Your task to perform on an android device: turn off priority inbox in the gmail app Image 0: 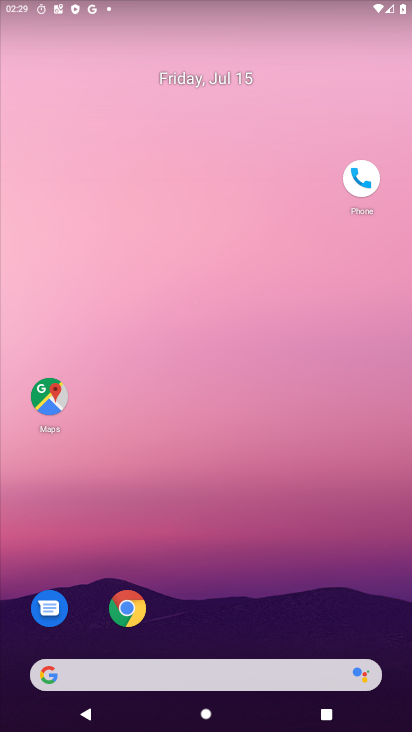
Step 0: drag from (175, 598) to (223, 127)
Your task to perform on an android device: turn off priority inbox in the gmail app Image 1: 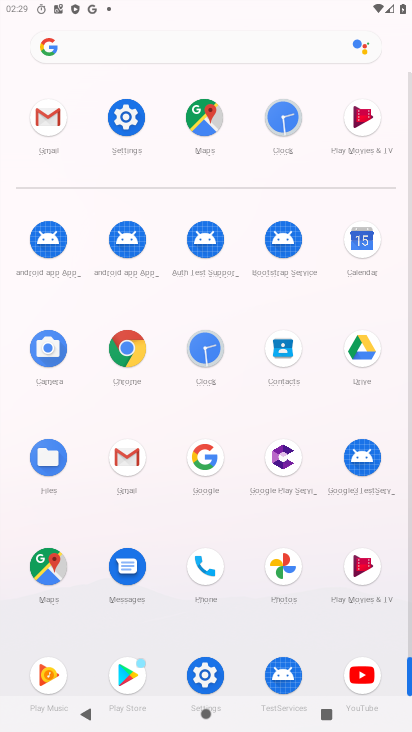
Step 1: click (139, 465)
Your task to perform on an android device: turn off priority inbox in the gmail app Image 2: 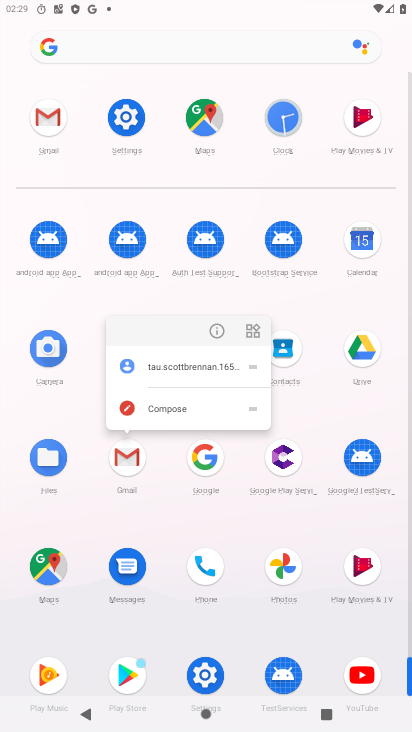
Step 2: click (213, 331)
Your task to perform on an android device: turn off priority inbox in the gmail app Image 3: 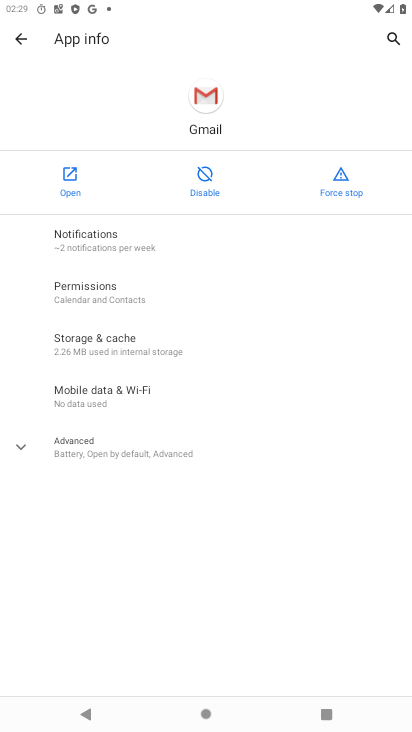
Step 3: drag from (110, 599) to (162, 380)
Your task to perform on an android device: turn off priority inbox in the gmail app Image 4: 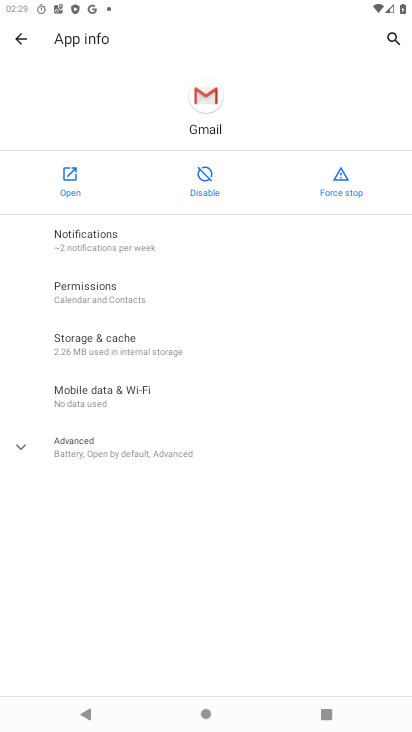
Step 4: click (70, 181)
Your task to perform on an android device: turn off priority inbox in the gmail app Image 5: 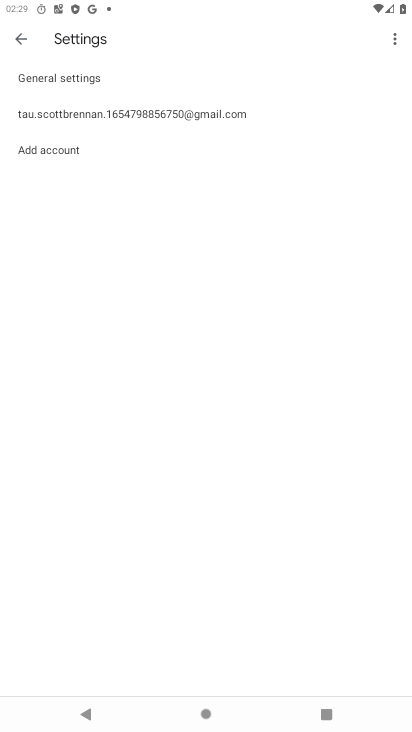
Step 5: click (113, 97)
Your task to perform on an android device: turn off priority inbox in the gmail app Image 6: 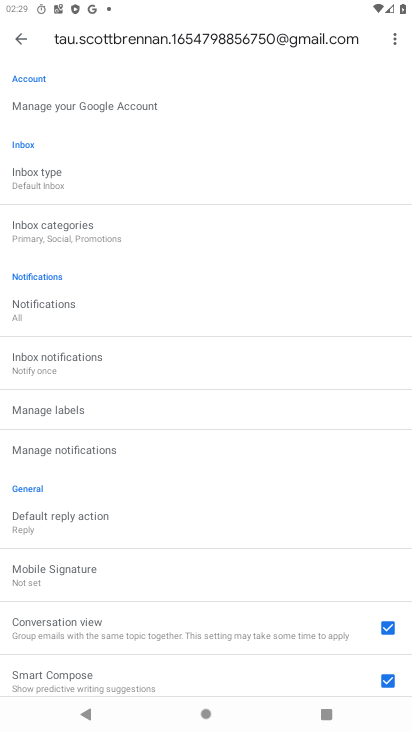
Step 6: click (103, 177)
Your task to perform on an android device: turn off priority inbox in the gmail app Image 7: 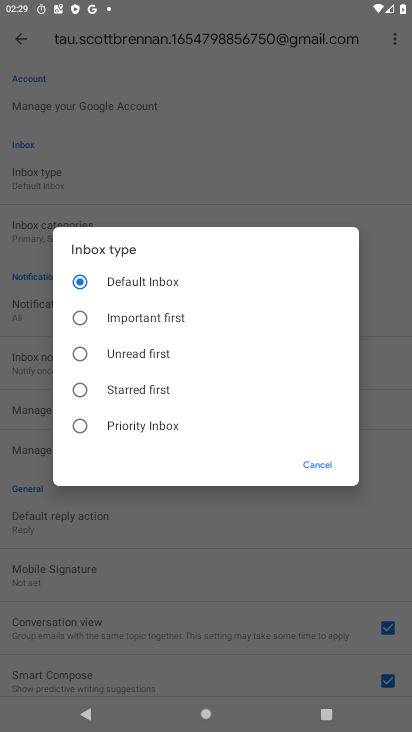
Step 7: task complete